Your task to perform on an android device: Go to notification settings Image 0: 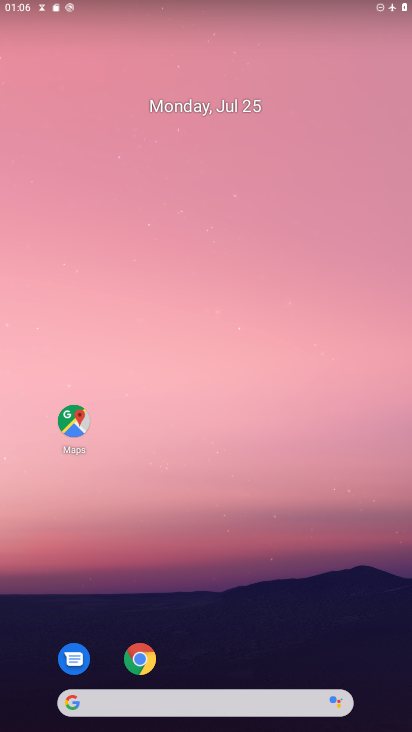
Step 0: drag from (231, 628) to (252, 171)
Your task to perform on an android device: Go to notification settings Image 1: 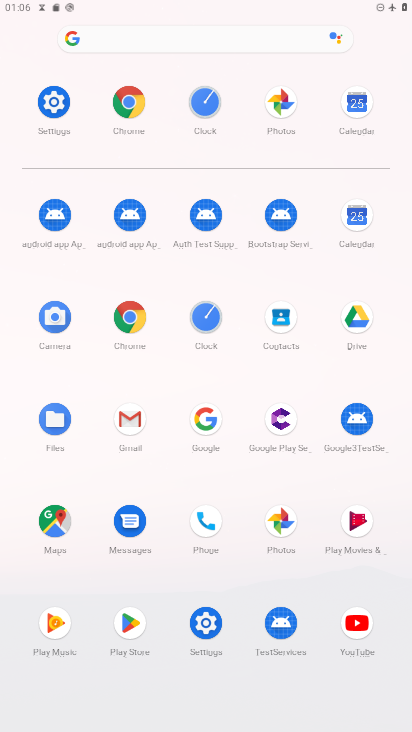
Step 1: click (54, 102)
Your task to perform on an android device: Go to notification settings Image 2: 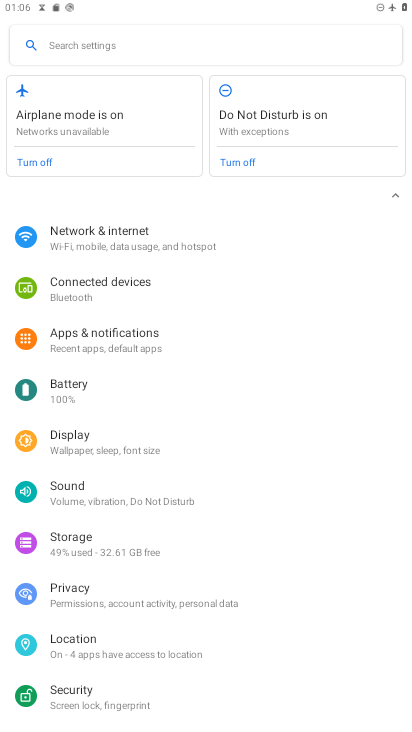
Step 2: click (128, 349)
Your task to perform on an android device: Go to notification settings Image 3: 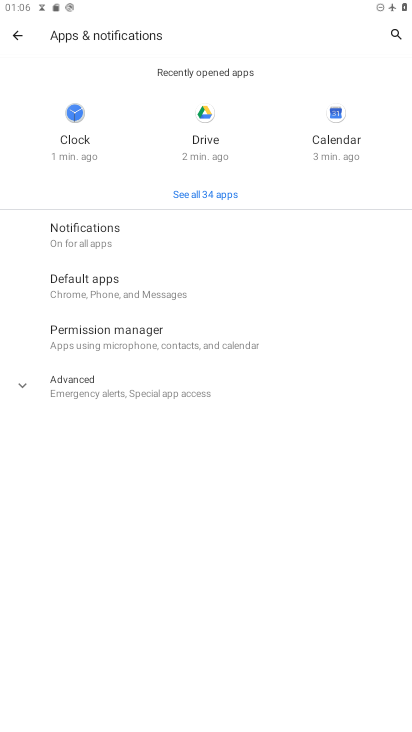
Step 3: click (108, 245)
Your task to perform on an android device: Go to notification settings Image 4: 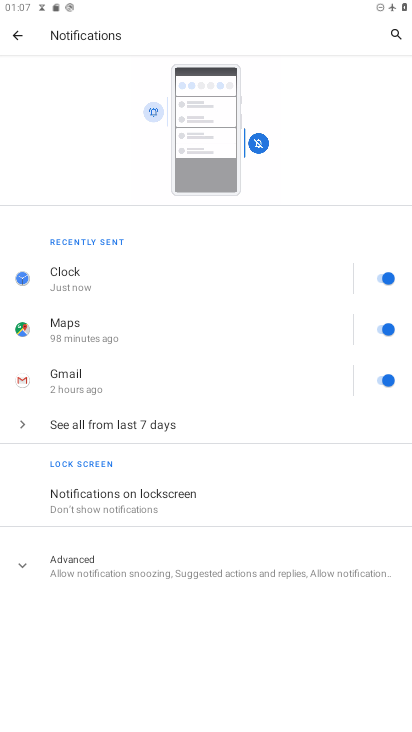
Step 4: task complete